Your task to perform on an android device: Go to CNN.com Image 0: 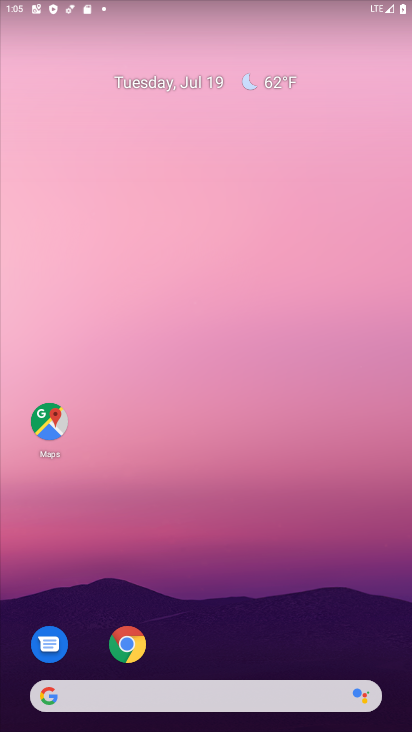
Step 0: click (131, 641)
Your task to perform on an android device: Go to CNN.com Image 1: 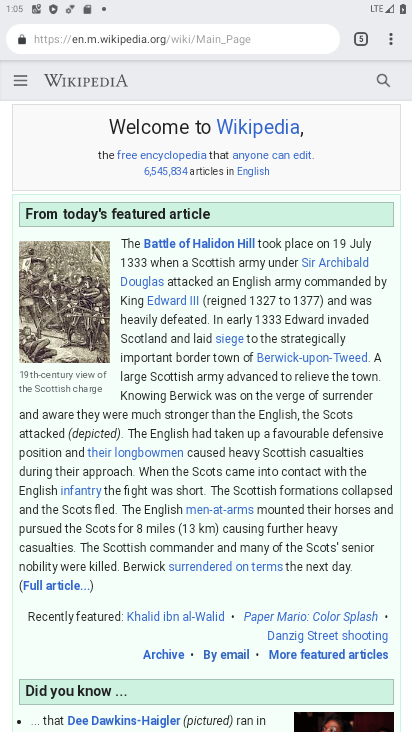
Step 1: click (394, 27)
Your task to perform on an android device: Go to CNN.com Image 2: 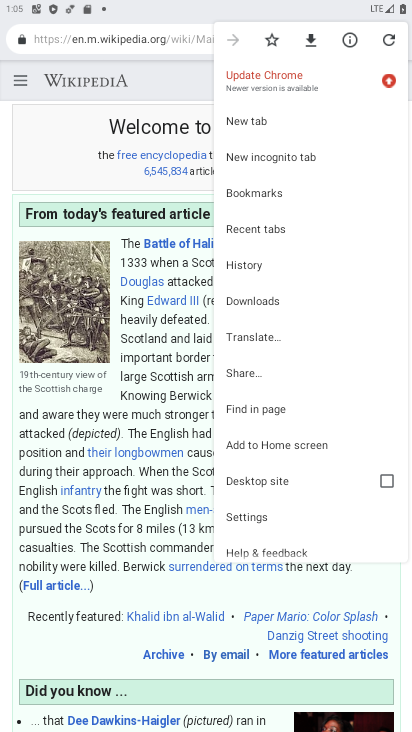
Step 2: click (247, 125)
Your task to perform on an android device: Go to CNN.com Image 3: 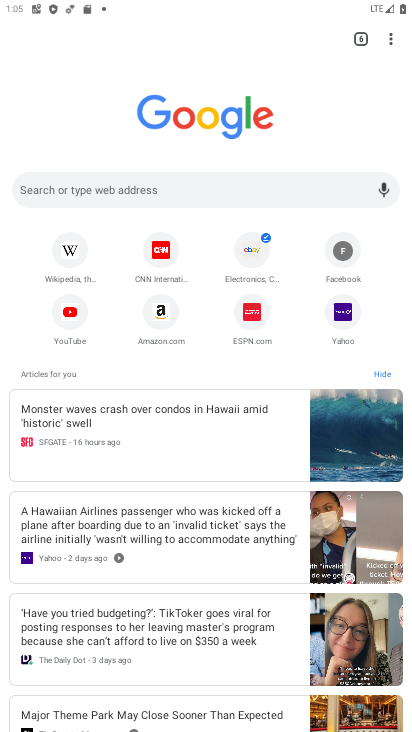
Step 3: click (198, 180)
Your task to perform on an android device: Go to CNN.com Image 4: 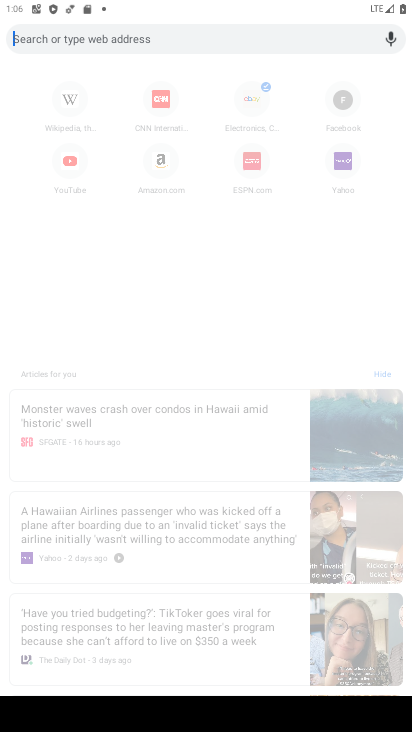
Step 4: type "cnn.com"
Your task to perform on an android device: Go to CNN.com Image 5: 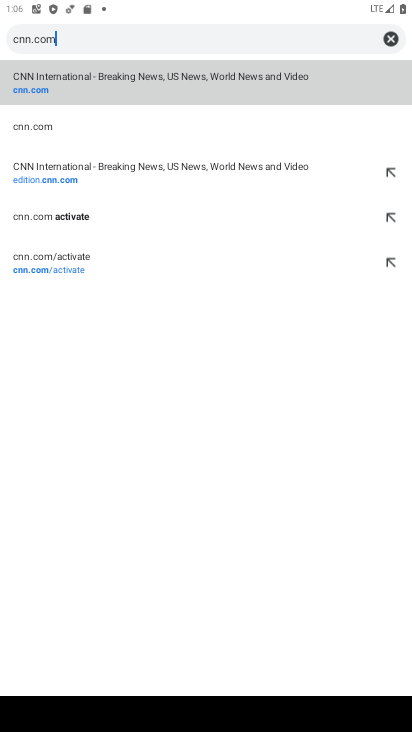
Step 5: click (99, 75)
Your task to perform on an android device: Go to CNN.com Image 6: 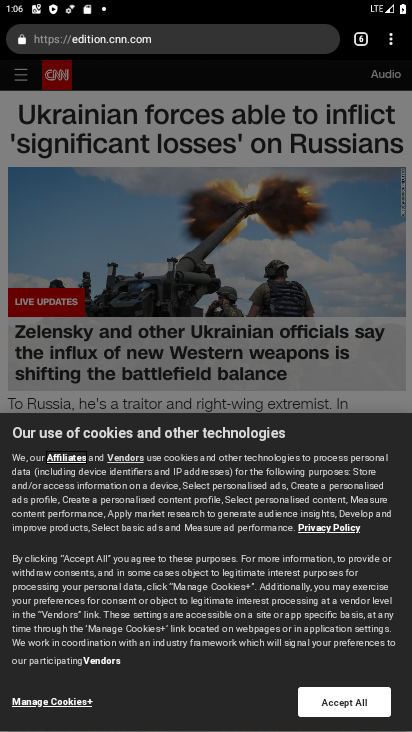
Step 6: task complete